Your task to perform on an android device: toggle wifi Image 0: 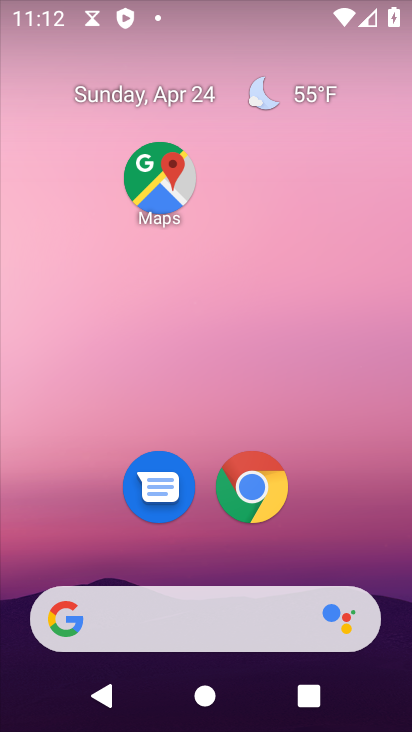
Step 0: drag from (368, 0) to (317, 496)
Your task to perform on an android device: toggle wifi Image 1: 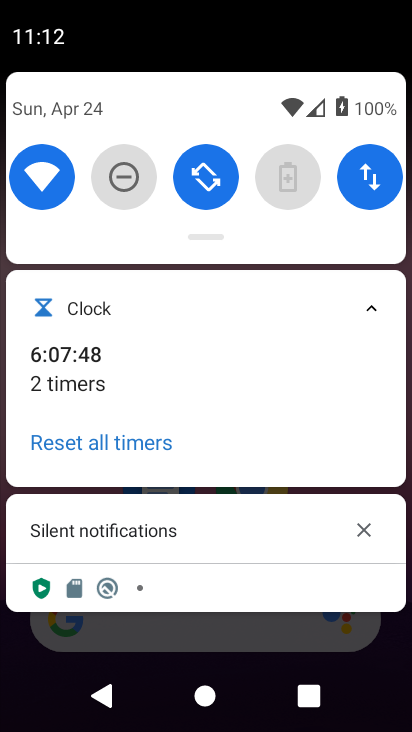
Step 1: click (51, 195)
Your task to perform on an android device: toggle wifi Image 2: 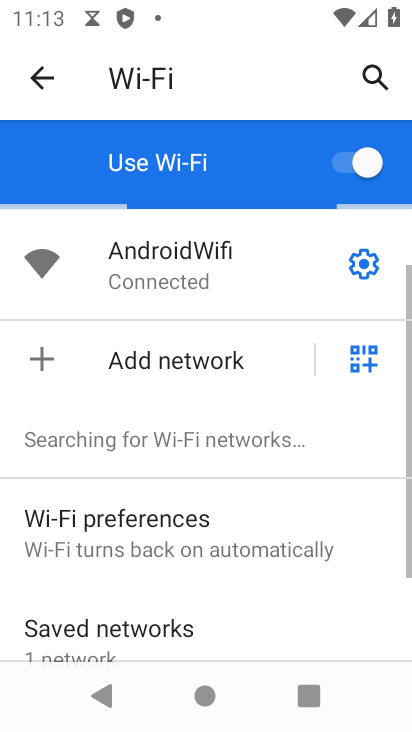
Step 2: task complete